Your task to perform on an android device: Open Youtube and go to "Your channel" Image 0: 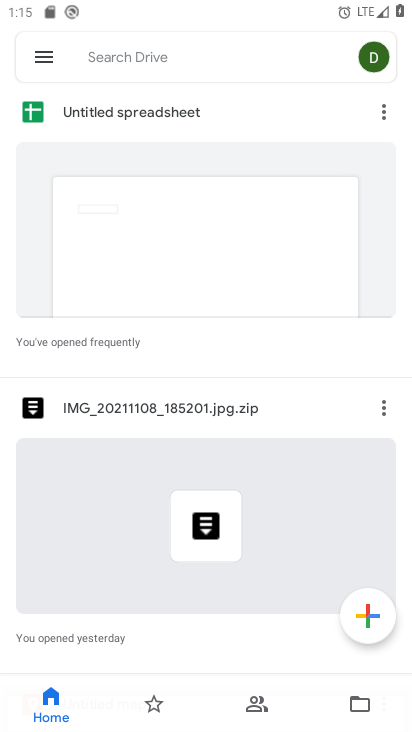
Step 0: press home button
Your task to perform on an android device: Open Youtube and go to "Your channel" Image 1: 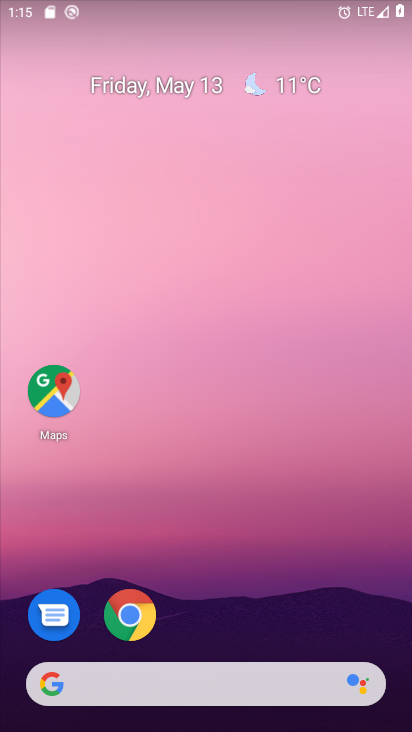
Step 1: drag from (234, 577) to (262, 176)
Your task to perform on an android device: Open Youtube and go to "Your channel" Image 2: 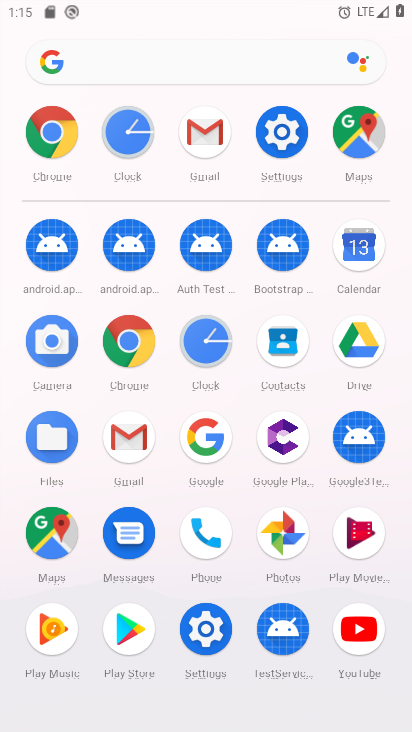
Step 2: click (357, 627)
Your task to perform on an android device: Open Youtube and go to "Your channel" Image 3: 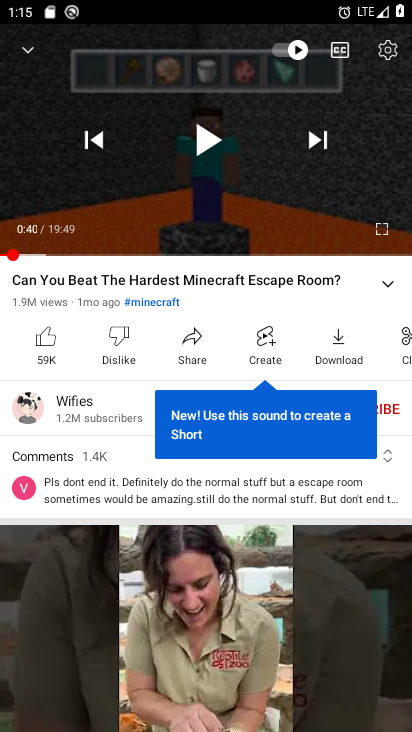
Step 3: press back button
Your task to perform on an android device: Open Youtube and go to "Your channel" Image 4: 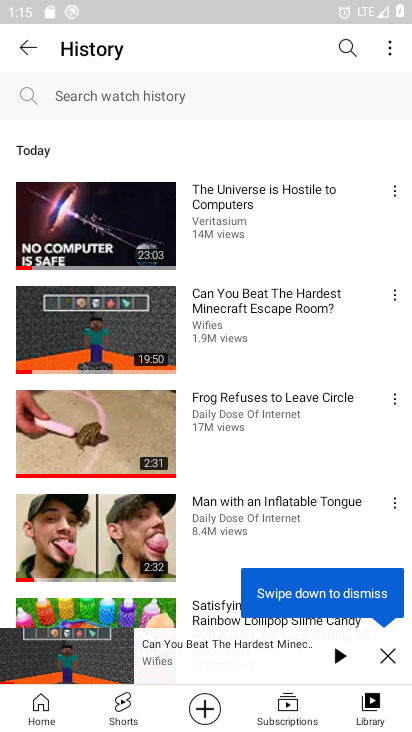
Step 4: click (31, 47)
Your task to perform on an android device: Open Youtube and go to "Your channel" Image 5: 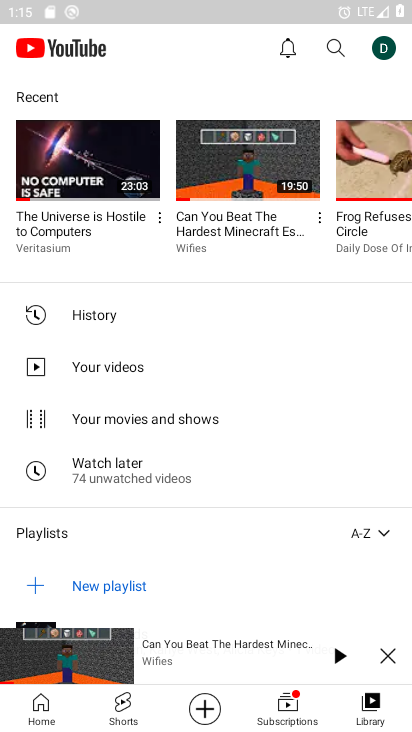
Step 5: click (381, 43)
Your task to perform on an android device: Open Youtube and go to "Your channel" Image 6: 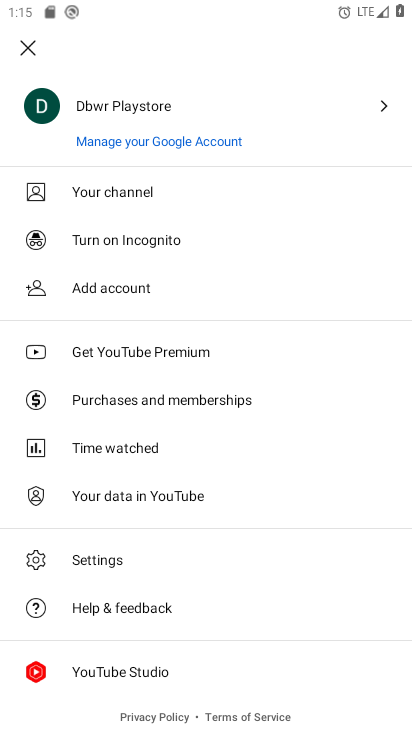
Step 6: click (155, 192)
Your task to perform on an android device: Open Youtube and go to "Your channel" Image 7: 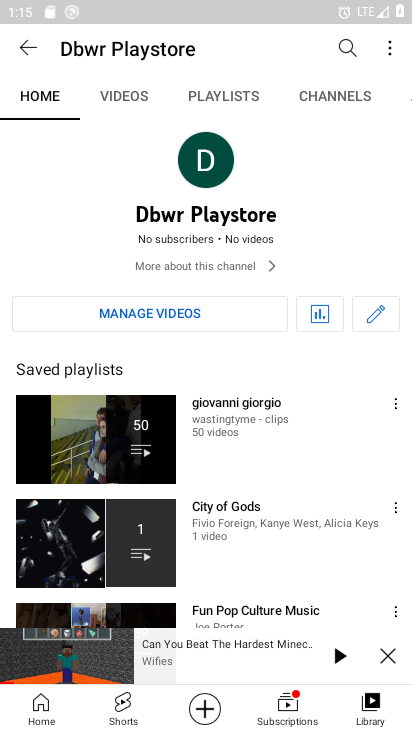
Step 7: task complete